Your task to perform on an android device: turn off location history Image 0: 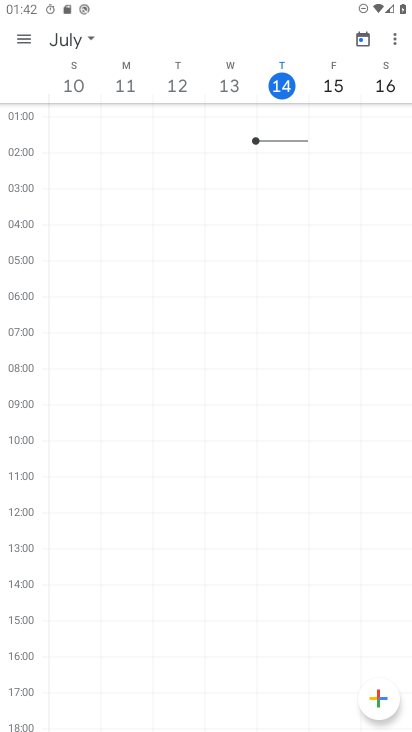
Step 0: press home button
Your task to perform on an android device: turn off location history Image 1: 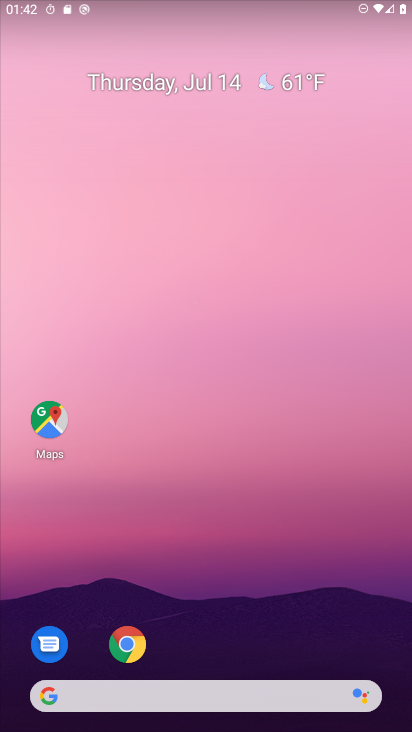
Step 1: drag from (304, 627) to (294, 134)
Your task to perform on an android device: turn off location history Image 2: 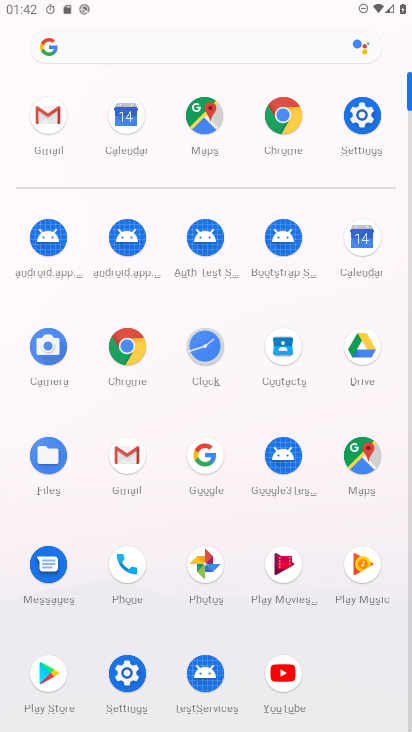
Step 2: click (377, 117)
Your task to perform on an android device: turn off location history Image 3: 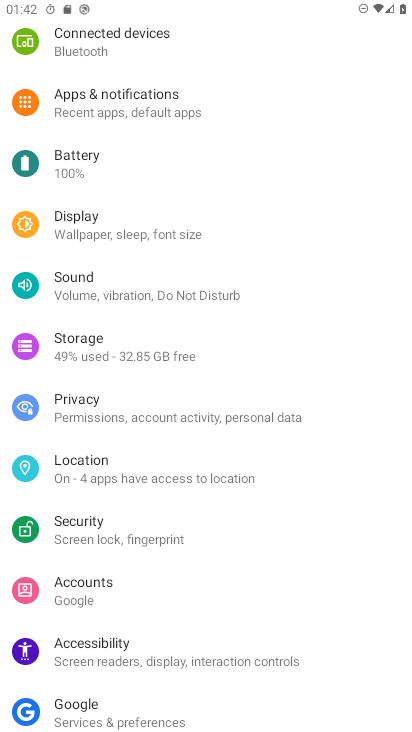
Step 3: click (128, 474)
Your task to perform on an android device: turn off location history Image 4: 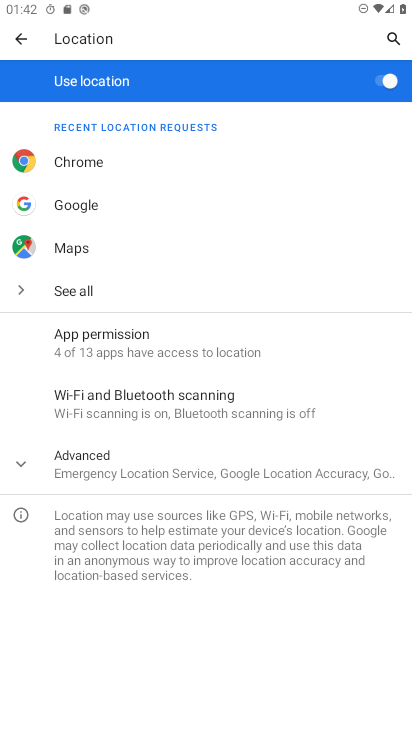
Step 4: click (125, 461)
Your task to perform on an android device: turn off location history Image 5: 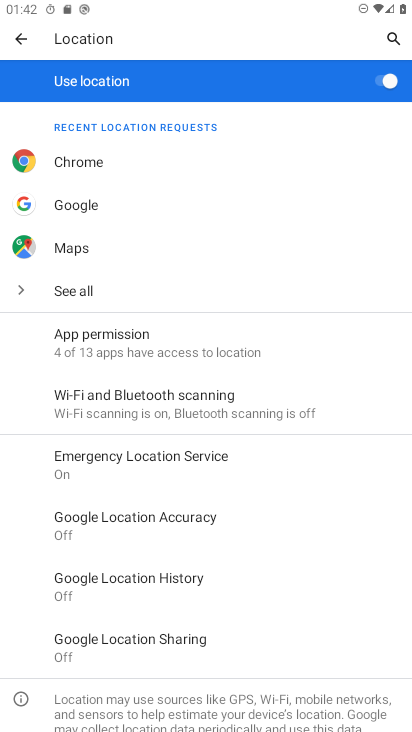
Step 5: click (185, 582)
Your task to perform on an android device: turn off location history Image 6: 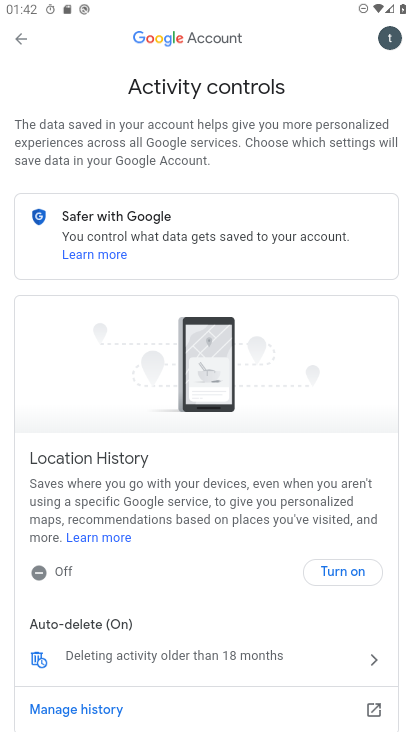
Step 6: task complete